Your task to perform on an android device: manage bookmarks in the chrome app Image 0: 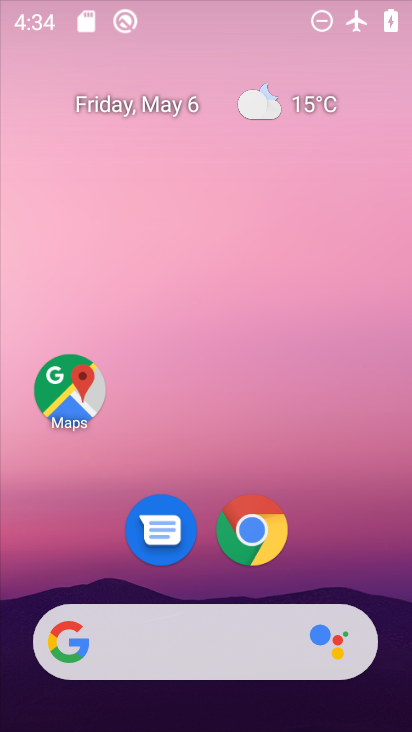
Step 0: drag from (359, 569) to (376, 25)
Your task to perform on an android device: manage bookmarks in the chrome app Image 1: 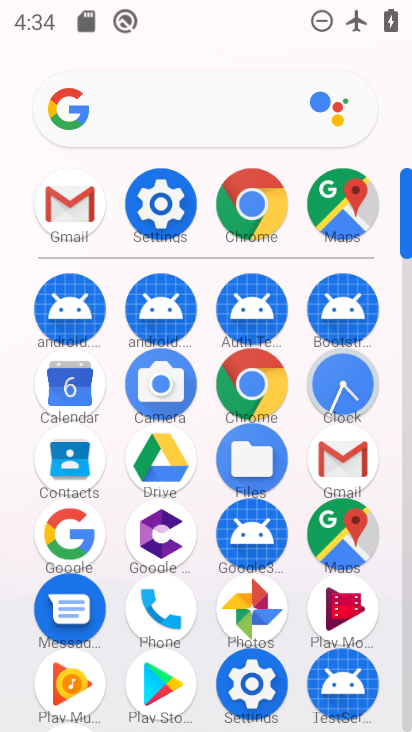
Step 1: click (239, 227)
Your task to perform on an android device: manage bookmarks in the chrome app Image 2: 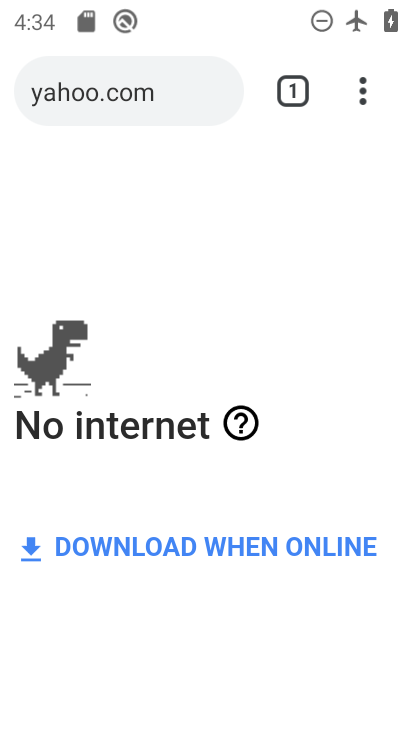
Step 2: task complete